Your task to perform on an android device: open app "YouTube Kids" Image 0: 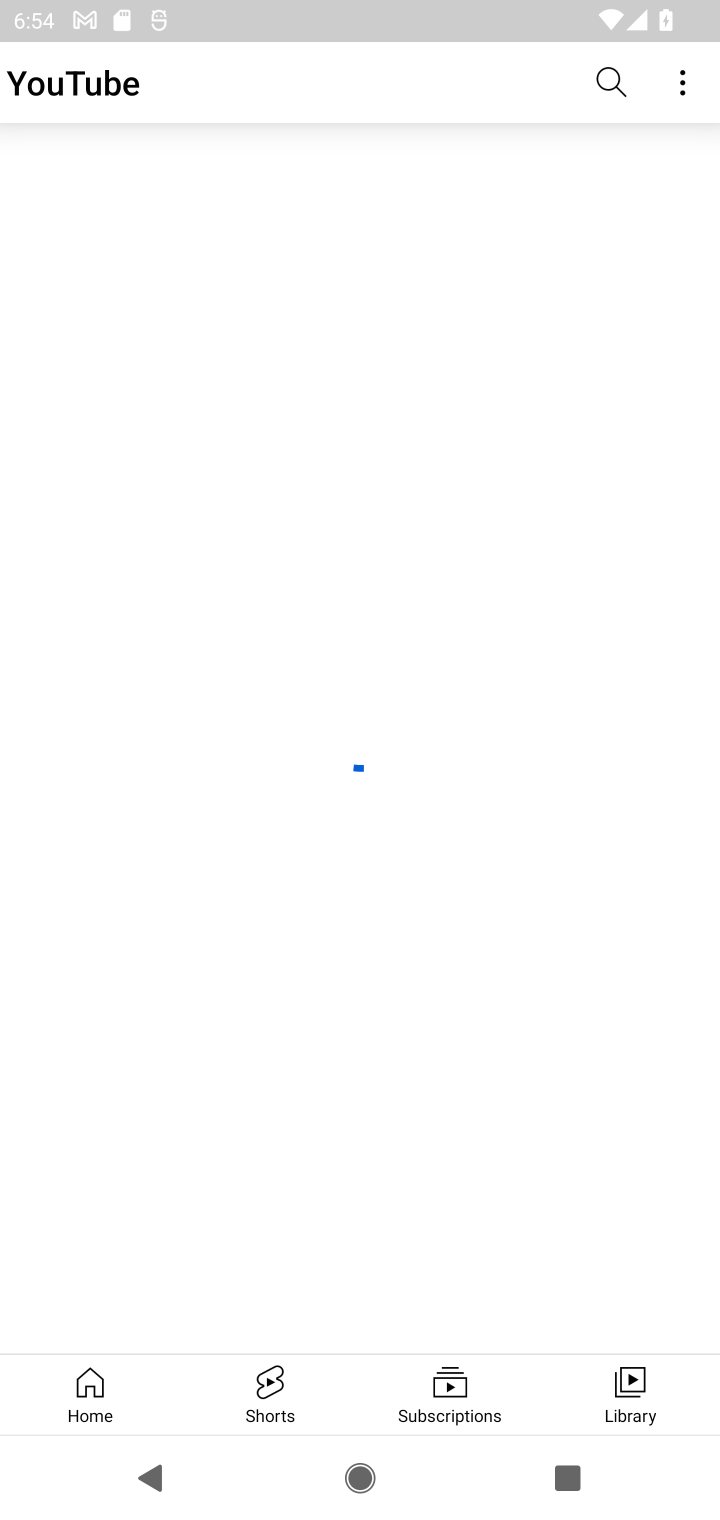
Step 0: press home button
Your task to perform on an android device: open app "YouTube Kids" Image 1: 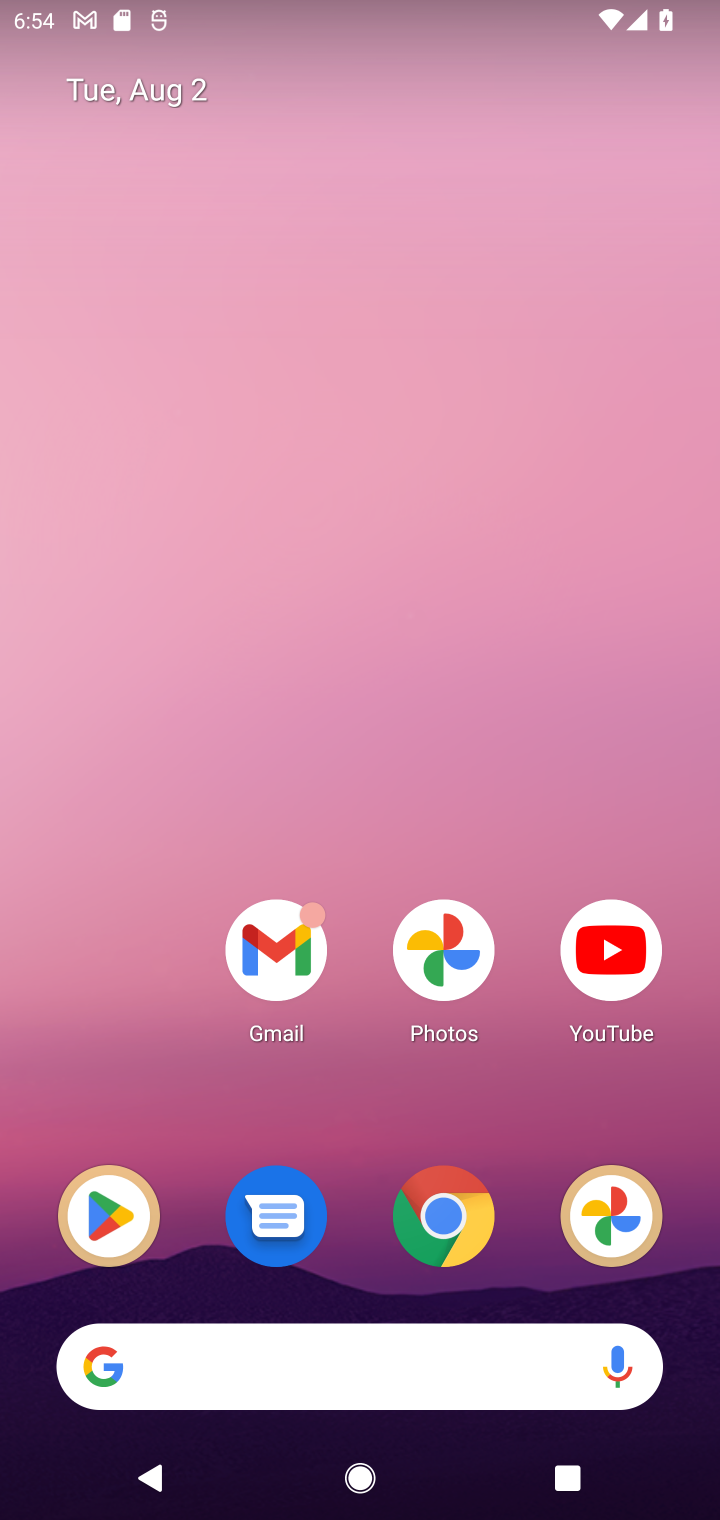
Step 1: click (115, 1213)
Your task to perform on an android device: open app "YouTube Kids" Image 2: 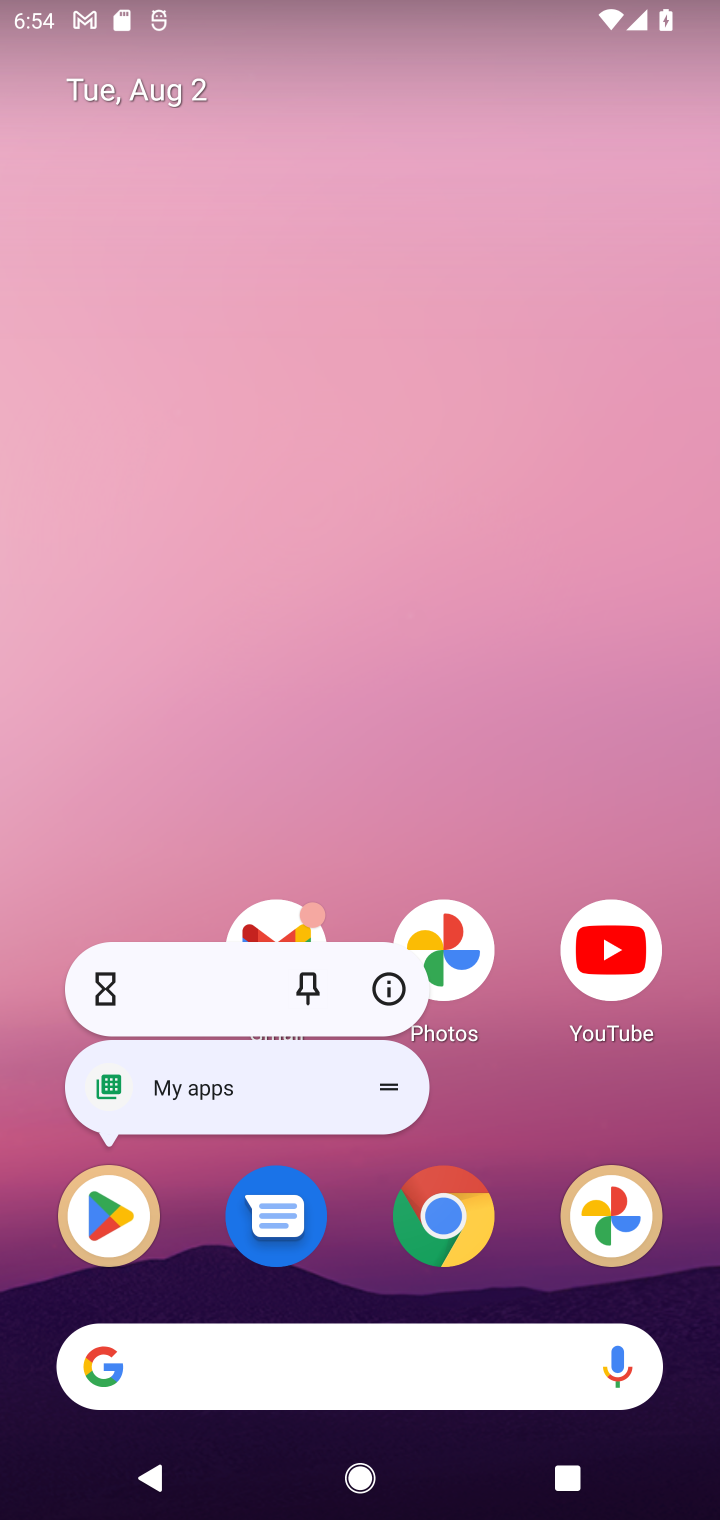
Step 2: click (113, 1217)
Your task to perform on an android device: open app "YouTube Kids" Image 3: 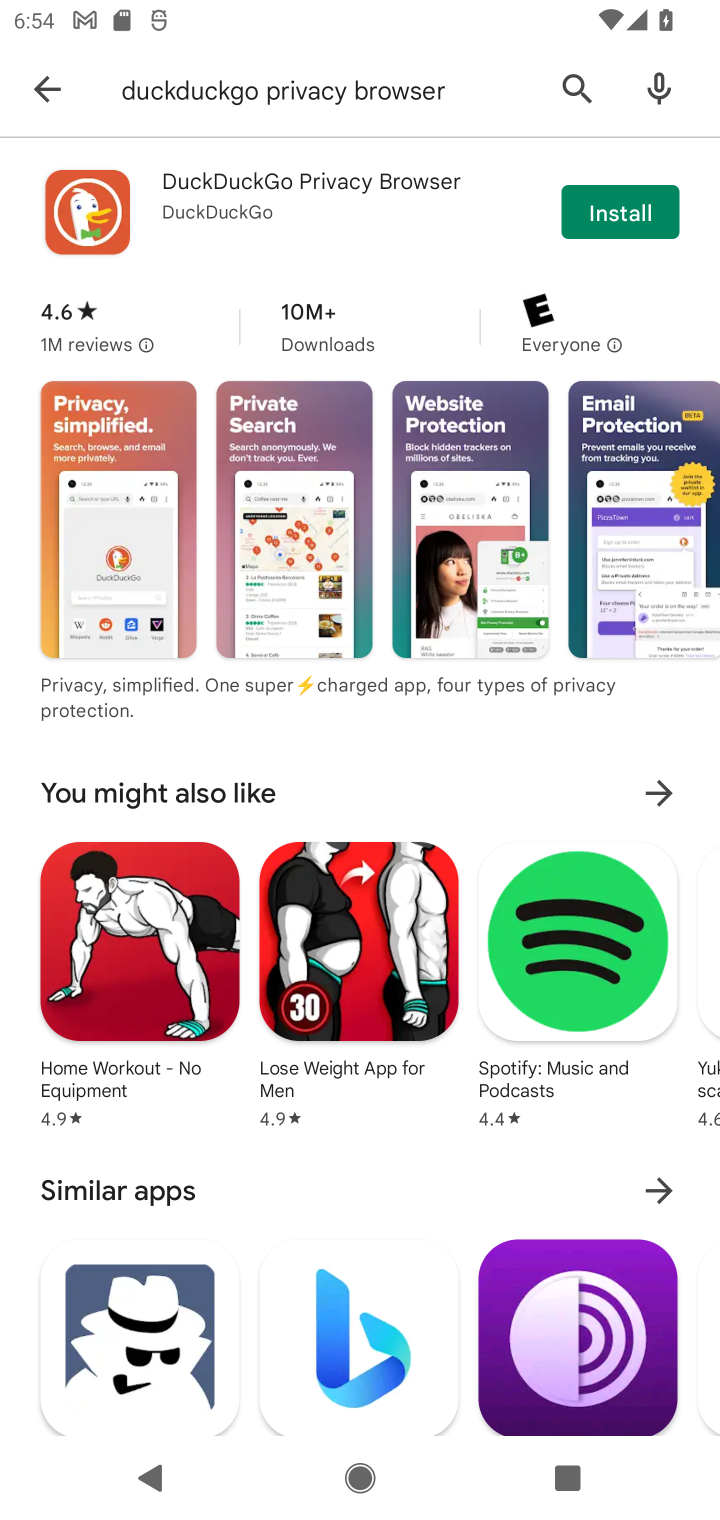
Step 3: click (564, 81)
Your task to perform on an android device: open app "YouTube Kids" Image 4: 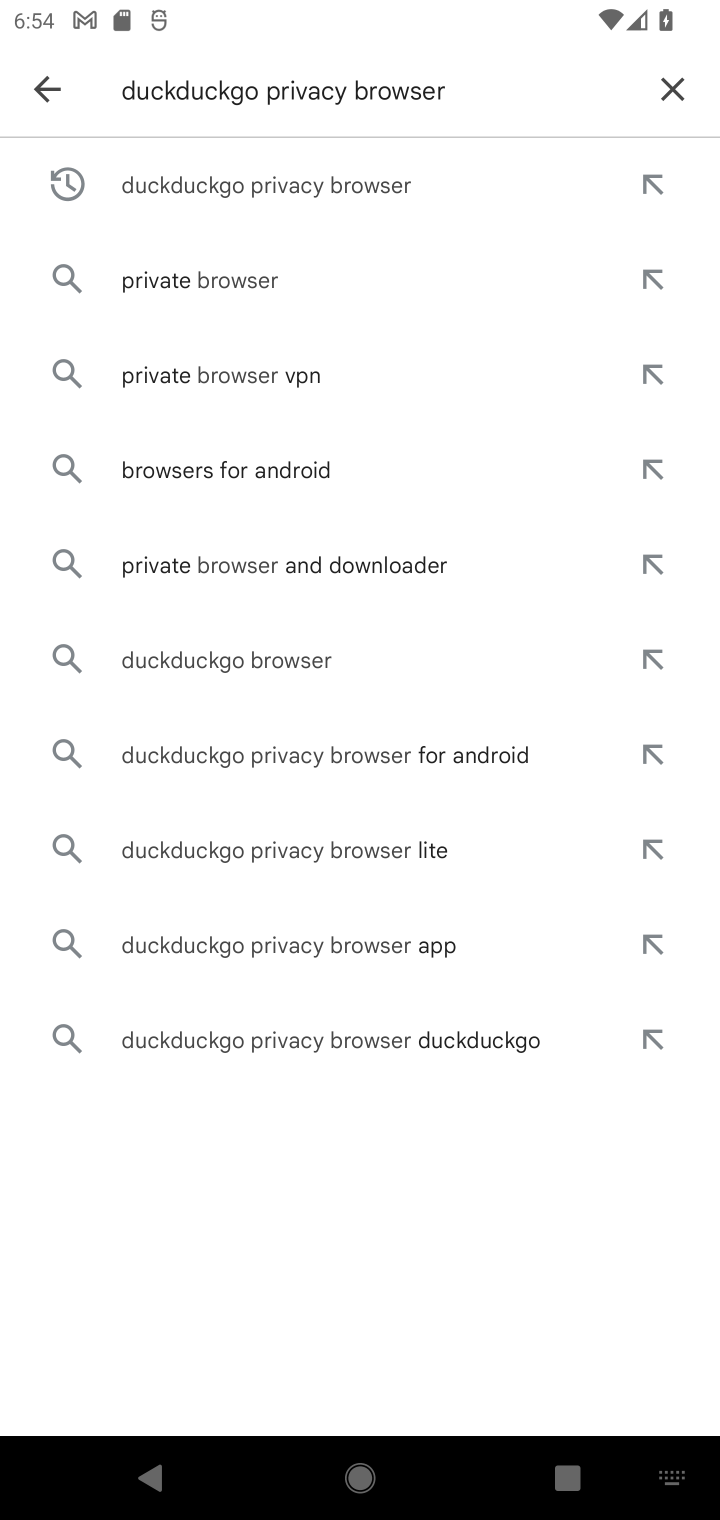
Step 4: click (666, 84)
Your task to perform on an android device: open app "YouTube Kids" Image 5: 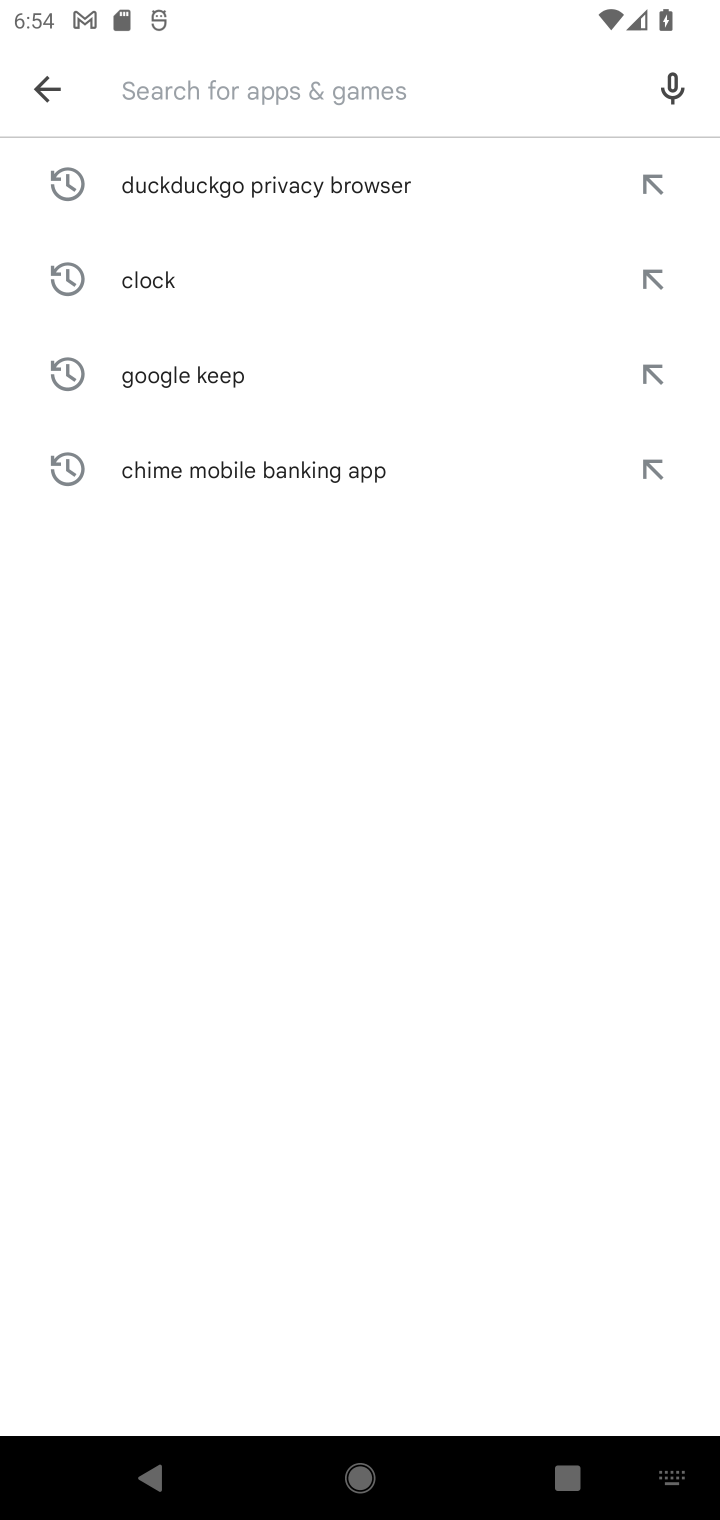
Step 5: type "YouTube Kids"
Your task to perform on an android device: open app "YouTube Kids" Image 6: 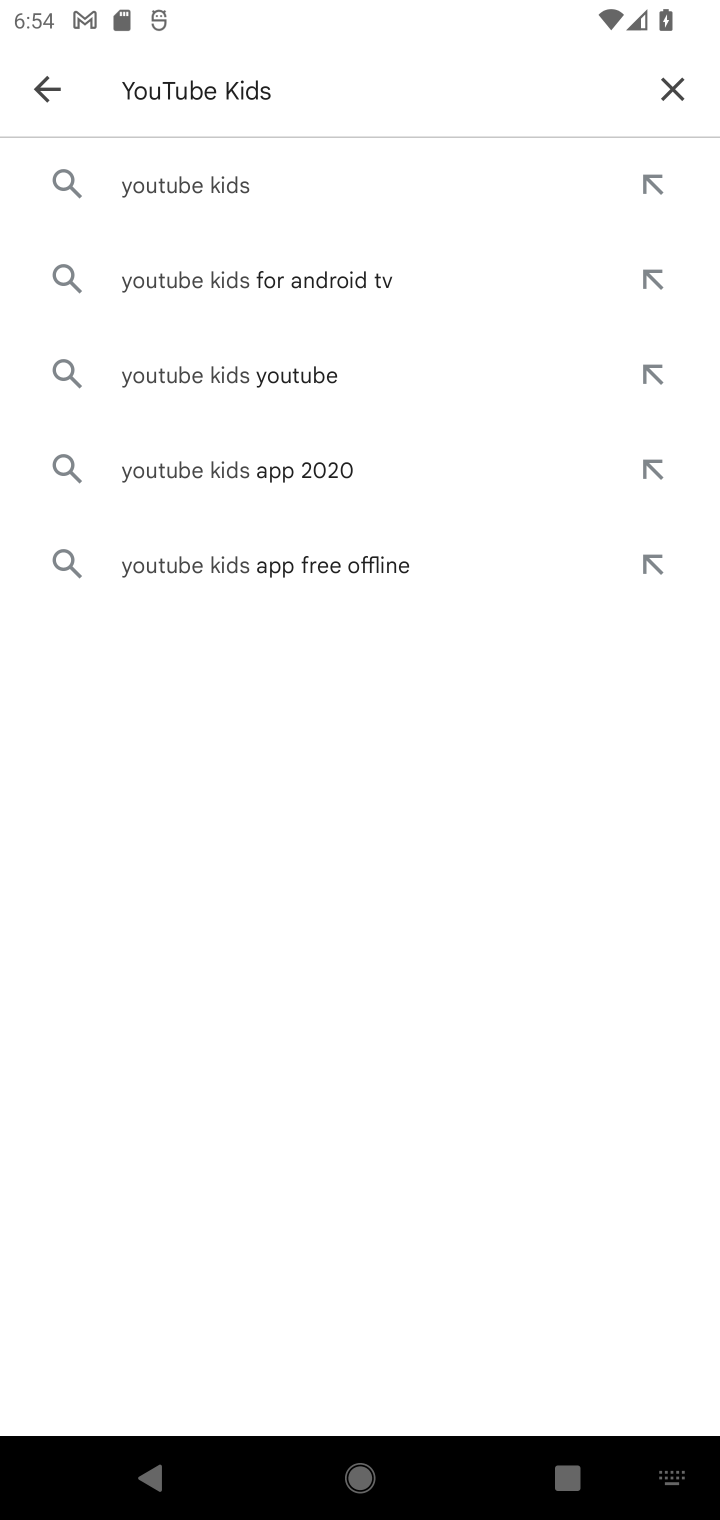
Step 6: click (225, 179)
Your task to perform on an android device: open app "YouTube Kids" Image 7: 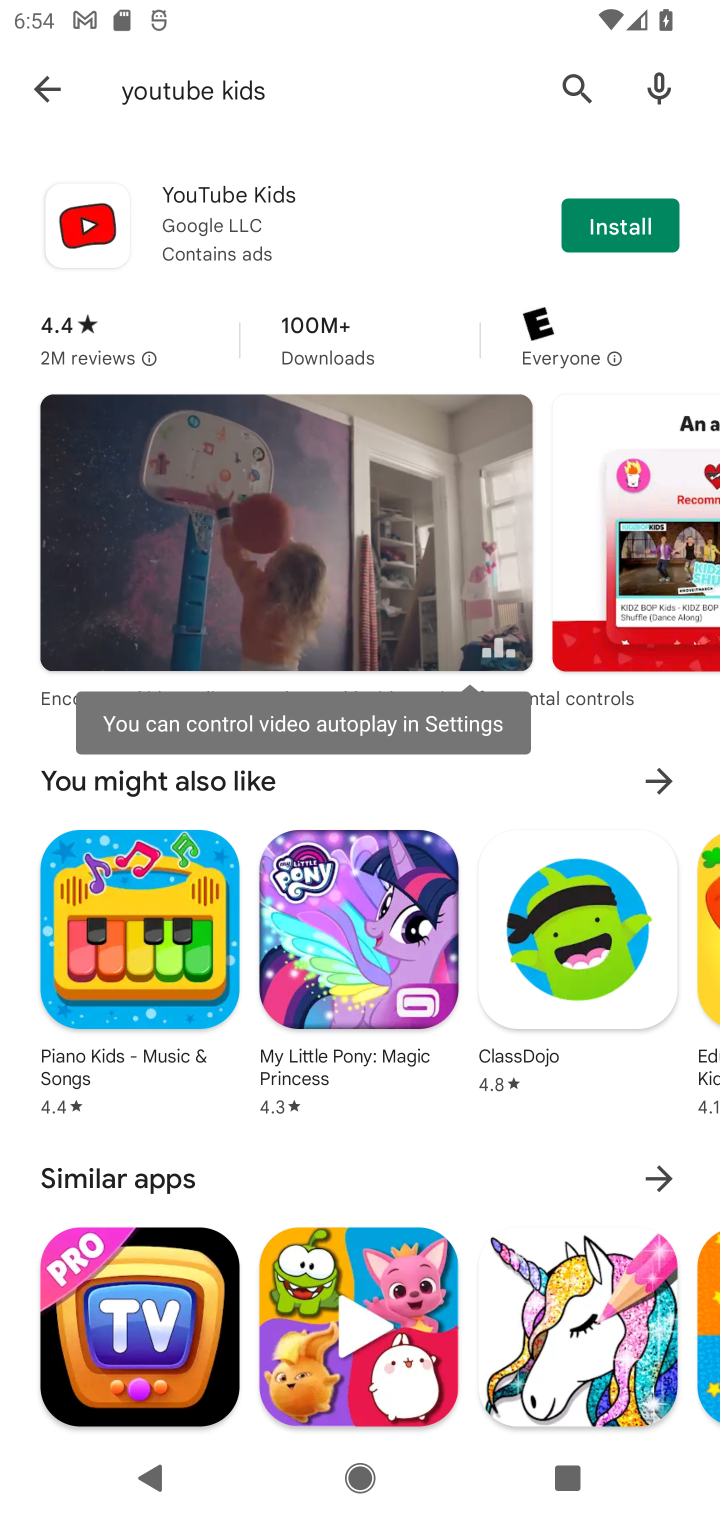
Step 7: task complete